Your task to perform on an android device: turn on the 12-hour format for clock Image 0: 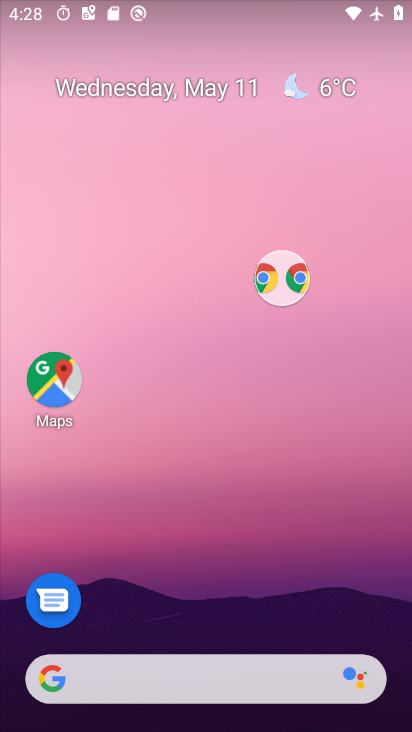
Step 0: drag from (214, 441) to (148, 69)
Your task to perform on an android device: turn on the 12-hour format for clock Image 1: 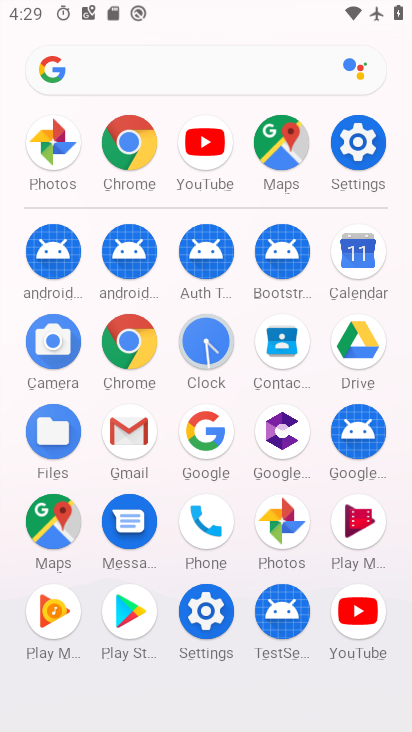
Step 1: click (203, 332)
Your task to perform on an android device: turn on the 12-hour format for clock Image 2: 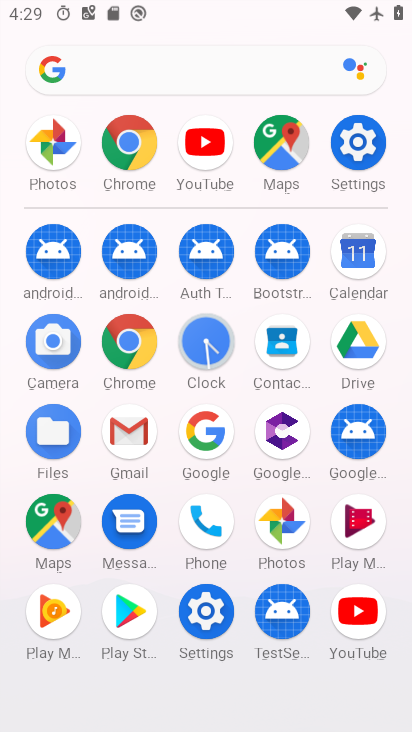
Step 2: click (208, 328)
Your task to perform on an android device: turn on the 12-hour format for clock Image 3: 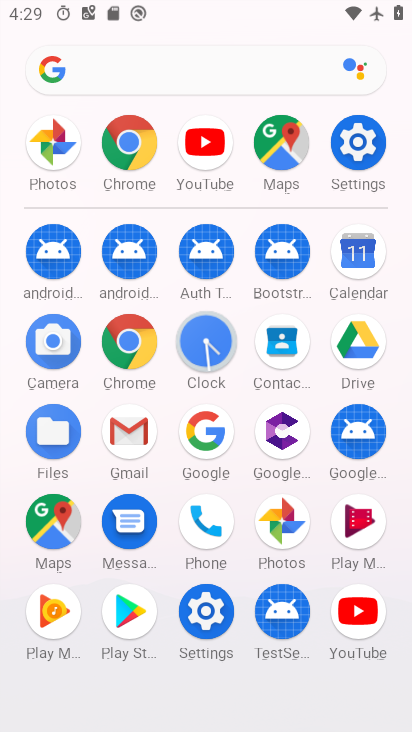
Step 3: click (209, 327)
Your task to perform on an android device: turn on the 12-hour format for clock Image 4: 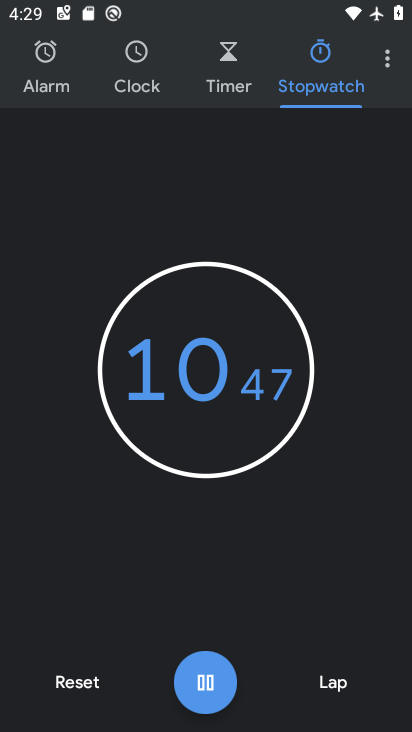
Step 4: click (200, 695)
Your task to perform on an android device: turn on the 12-hour format for clock Image 5: 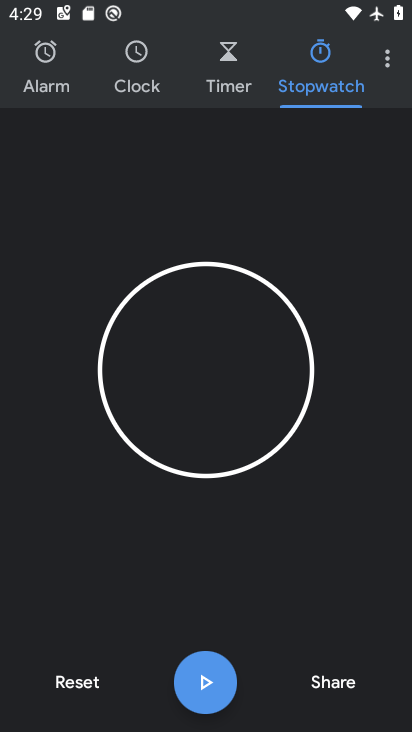
Step 5: click (214, 672)
Your task to perform on an android device: turn on the 12-hour format for clock Image 6: 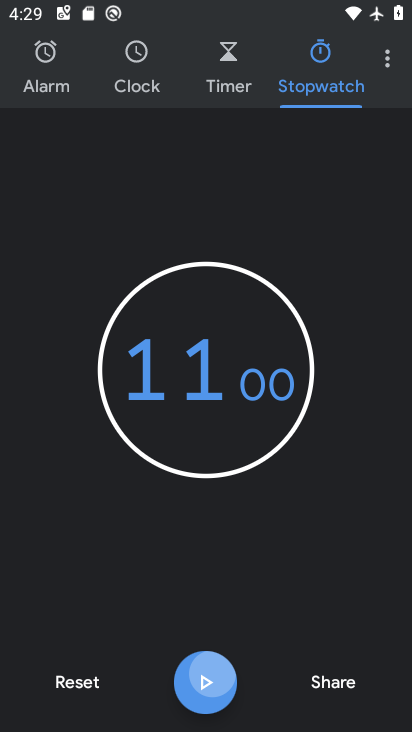
Step 6: click (214, 677)
Your task to perform on an android device: turn on the 12-hour format for clock Image 7: 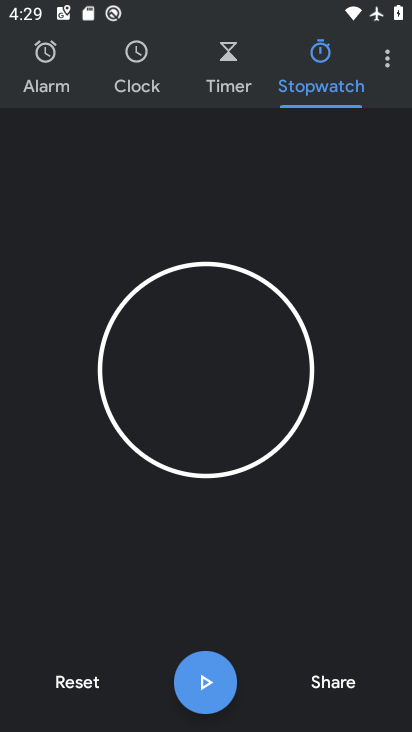
Step 7: click (388, 46)
Your task to perform on an android device: turn on the 12-hour format for clock Image 8: 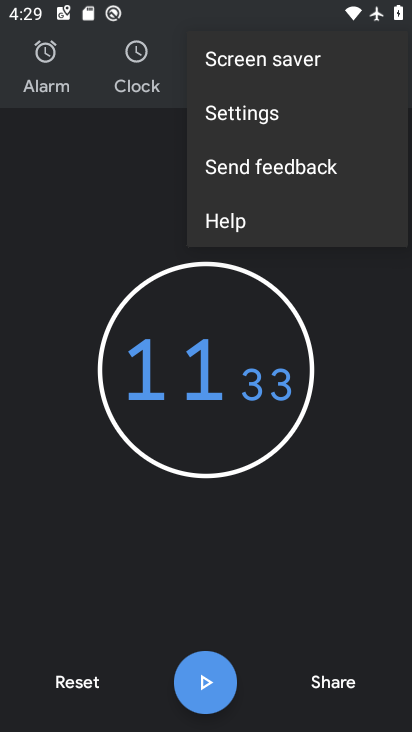
Step 8: click (231, 126)
Your task to perform on an android device: turn on the 12-hour format for clock Image 9: 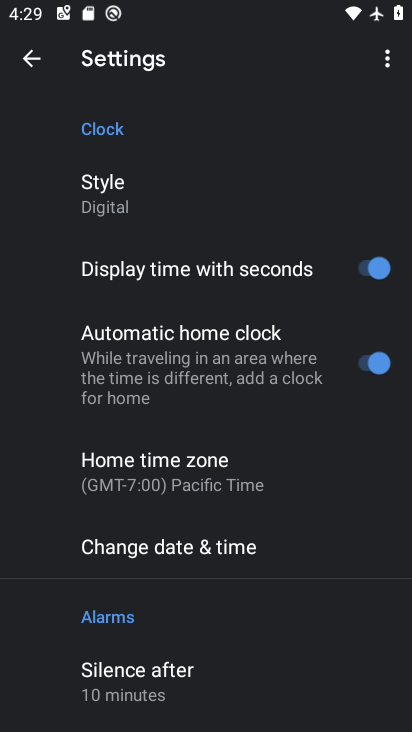
Step 9: click (173, 549)
Your task to perform on an android device: turn on the 12-hour format for clock Image 10: 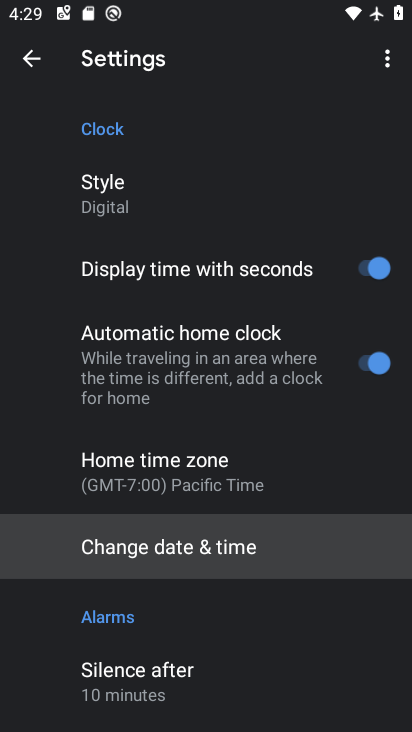
Step 10: click (173, 549)
Your task to perform on an android device: turn on the 12-hour format for clock Image 11: 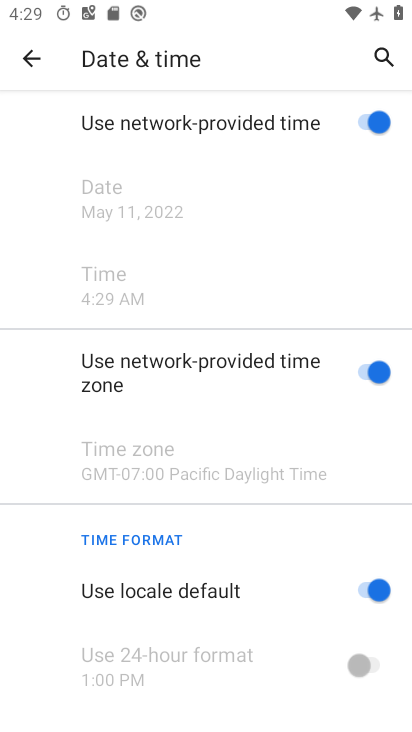
Step 11: task complete